Your task to perform on an android device: move an email to a new category in the gmail app Image 0: 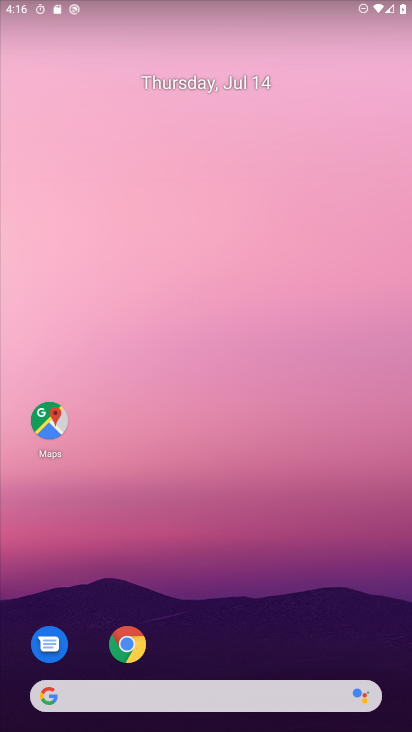
Step 0: drag from (200, 602) to (268, 15)
Your task to perform on an android device: move an email to a new category in the gmail app Image 1: 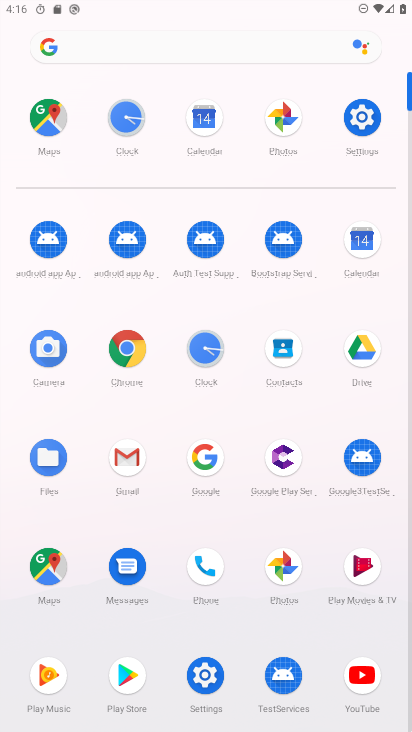
Step 1: click (134, 452)
Your task to perform on an android device: move an email to a new category in the gmail app Image 2: 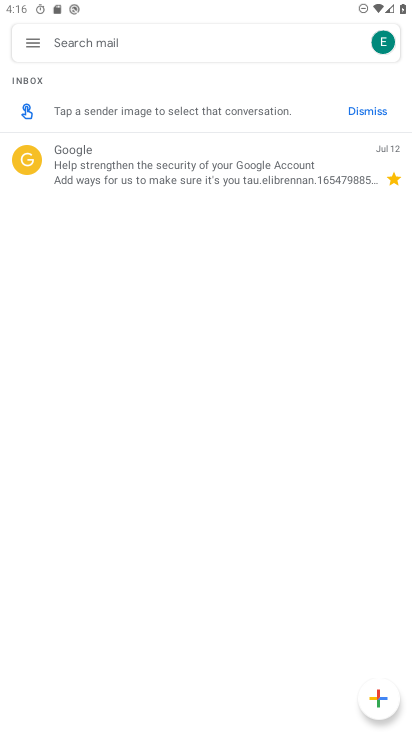
Step 2: click (28, 39)
Your task to perform on an android device: move an email to a new category in the gmail app Image 3: 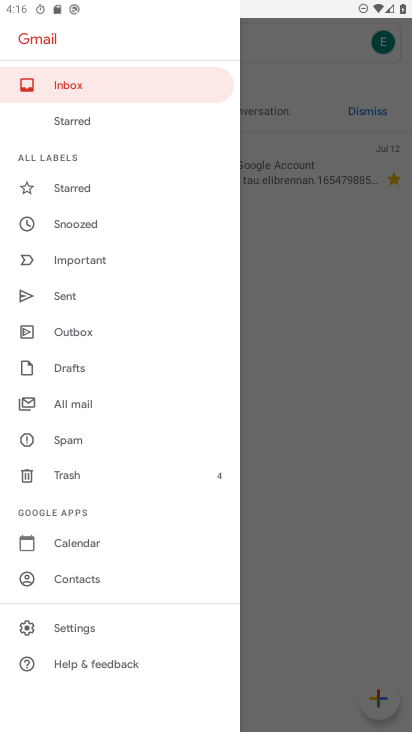
Step 3: click (95, 404)
Your task to perform on an android device: move an email to a new category in the gmail app Image 4: 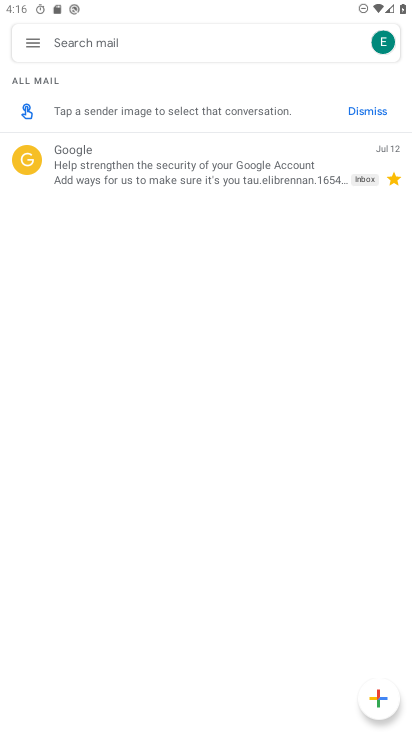
Step 4: click (123, 168)
Your task to perform on an android device: move an email to a new category in the gmail app Image 5: 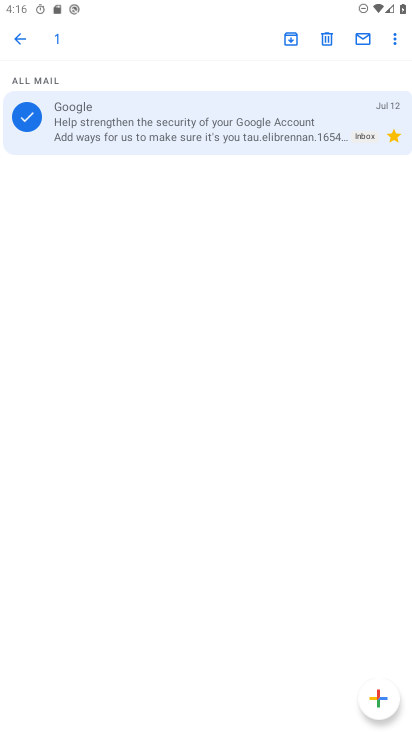
Step 5: click (394, 46)
Your task to perform on an android device: move an email to a new category in the gmail app Image 6: 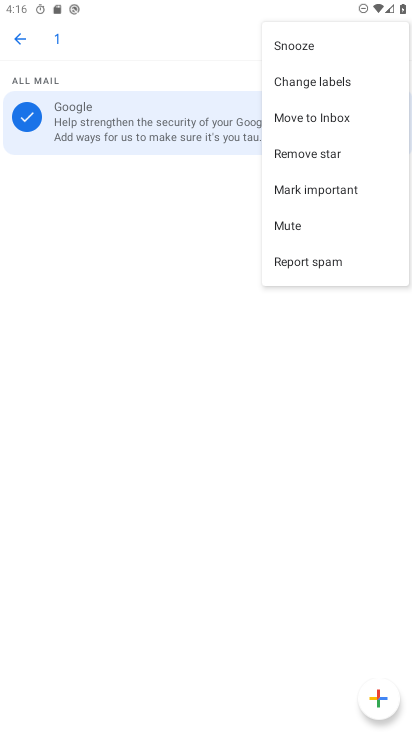
Step 6: click (298, 119)
Your task to perform on an android device: move an email to a new category in the gmail app Image 7: 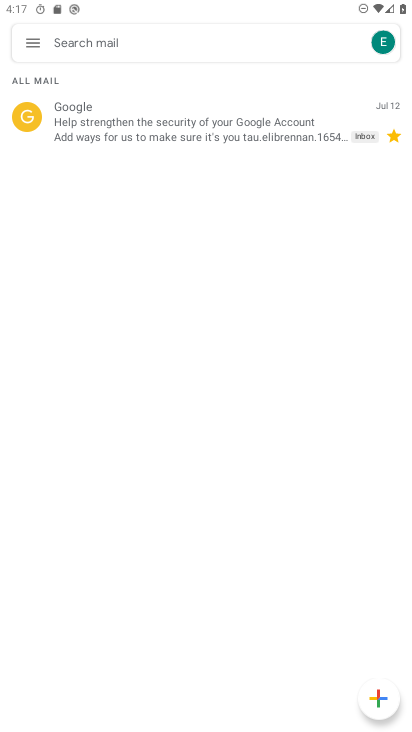
Step 7: task complete